Your task to perform on an android device: turn vacation reply on in the gmail app Image 0: 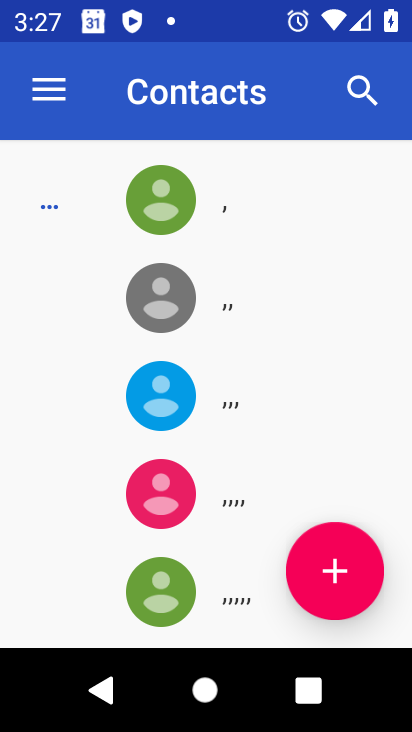
Step 0: press home button
Your task to perform on an android device: turn vacation reply on in the gmail app Image 1: 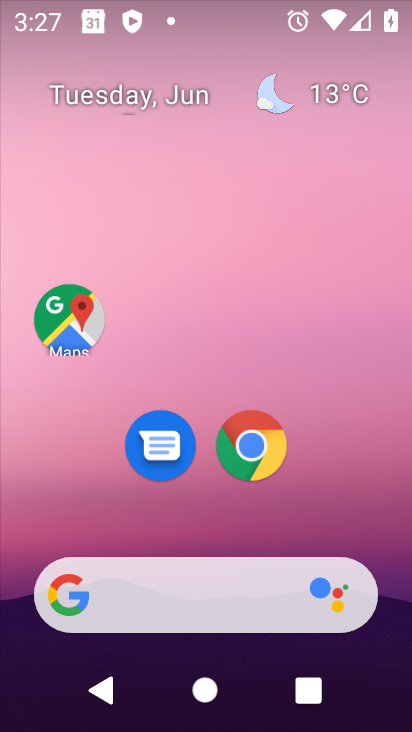
Step 1: drag from (406, 624) to (341, 138)
Your task to perform on an android device: turn vacation reply on in the gmail app Image 2: 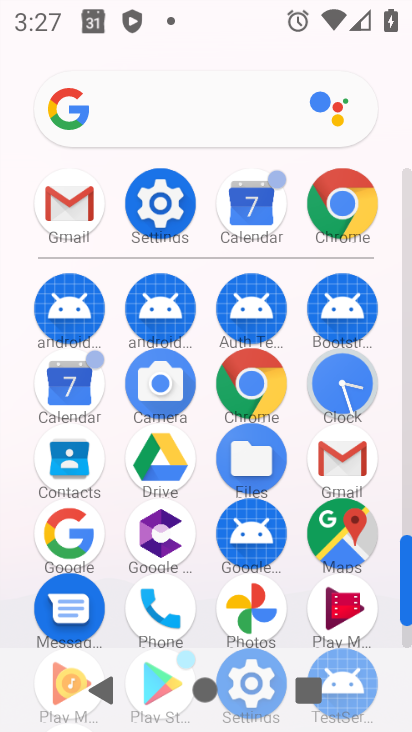
Step 2: click (403, 632)
Your task to perform on an android device: turn vacation reply on in the gmail app Image 3: 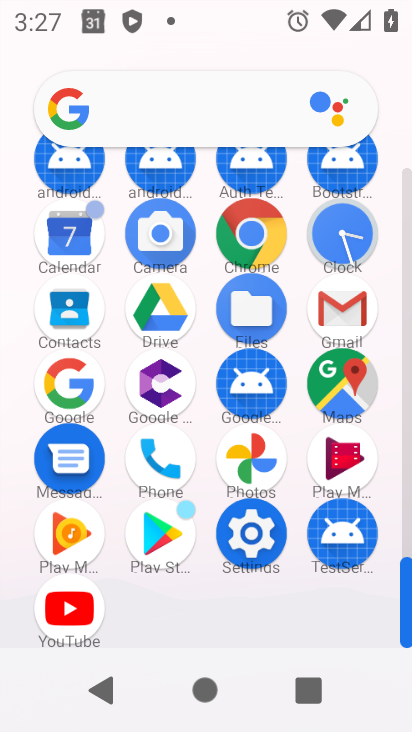
Step 3: click (338, 308)
Your task to perform on an android device: turn vacation reply on in the gmail app Image 4: 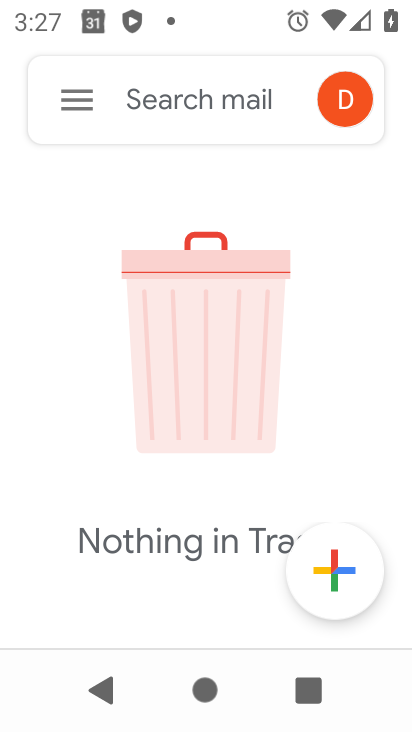
Step 4: click (76, 97)
Your task to perform on an android device: turn vacation reply on in the gmail app Image 5: 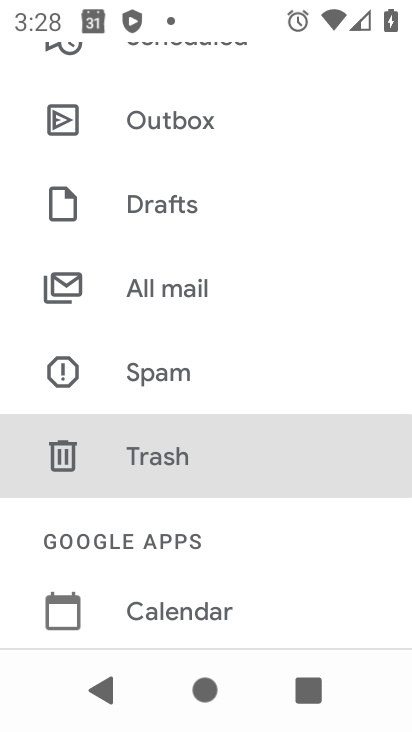
Step 5: drag from (303, 606) to (277, 62)
Your task to perform on an android device: turn vacation reply on in the gmail app Image 6: 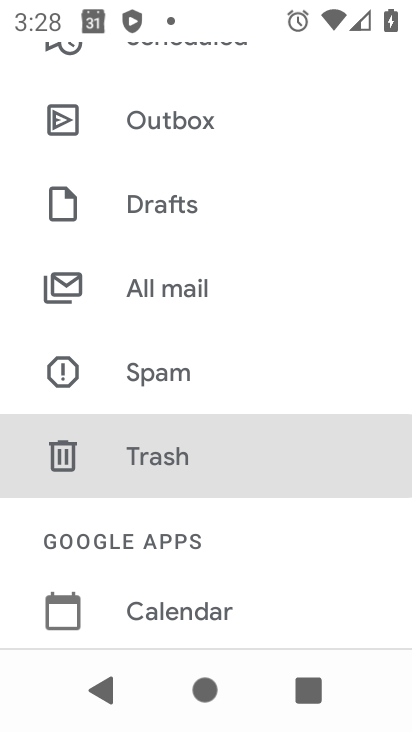
Step 6: drag from (273, 583) to (266, 59)
Your task to perform on an android device: turn vacation reply on in the gmail app Image 7: 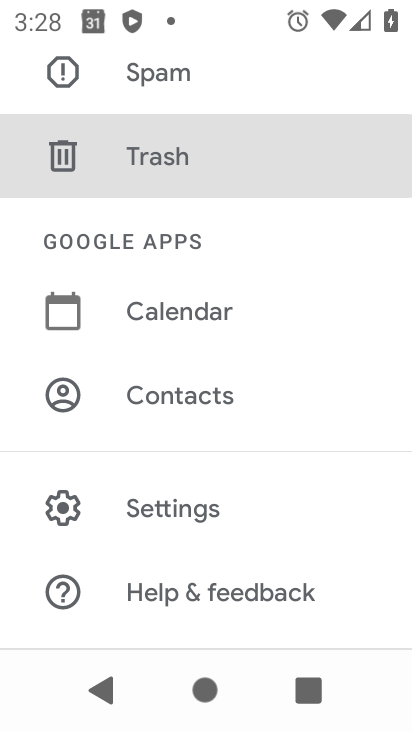
Step 7: click (176, 516)
Your task to perform on an android device: turn vacation reply on in the gmail app Image 8: 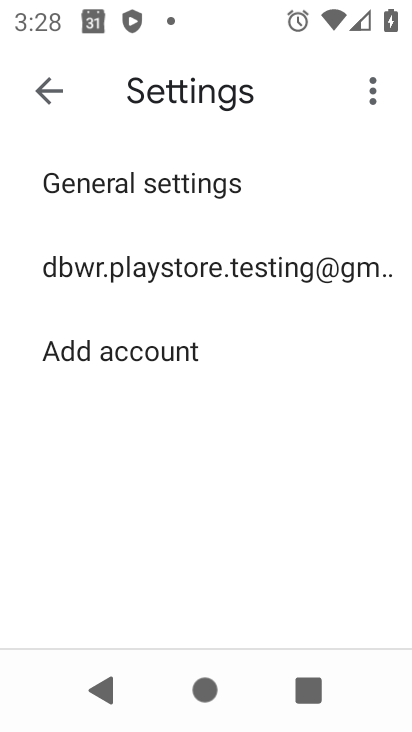
Step 8: click (183, 252)
Your task to perform on an android device: turn vacation reply on in the gmail app Image 9: 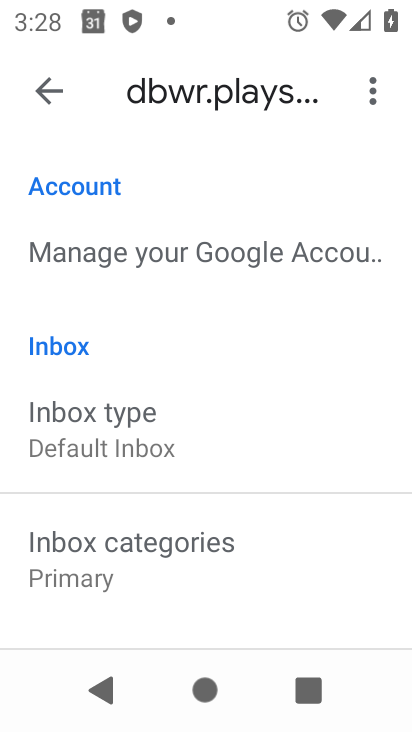
Step 9: drag from (268, 554) to (270, 155)
Your task to perform on an android device: turn vacation reply on in the gmail app Image 10: 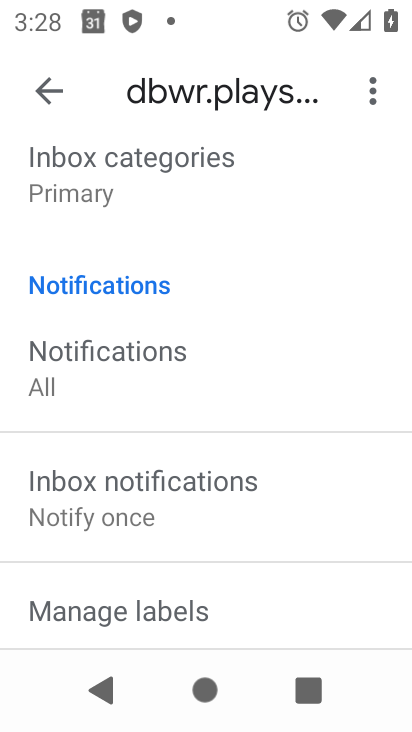
Step 10: drag from (286, 580) to (263, 215)
Your task to perform on an android device: turn vacation reply on in the gmail app Image 11: 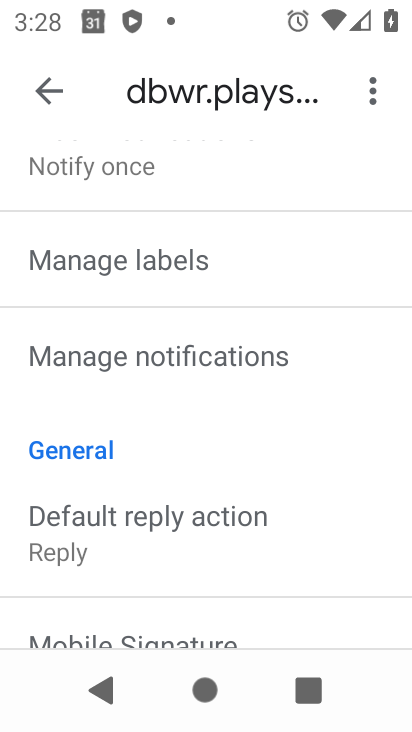
Step 11: drag from (299, 619) to (278, 115)
Your task to perform on an android device: turn vacation reply on in the gmail app Image 12: 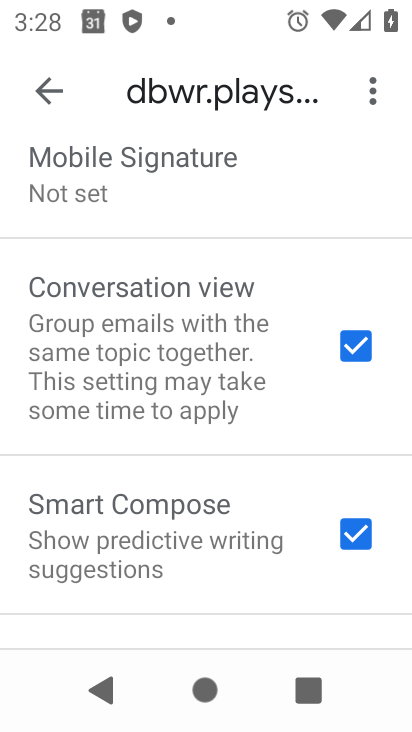
Step 12: drag from (297, 596) to (278, 210)
Your task to perform on an android device: turn vacation reply on in the gmail app Image 13: 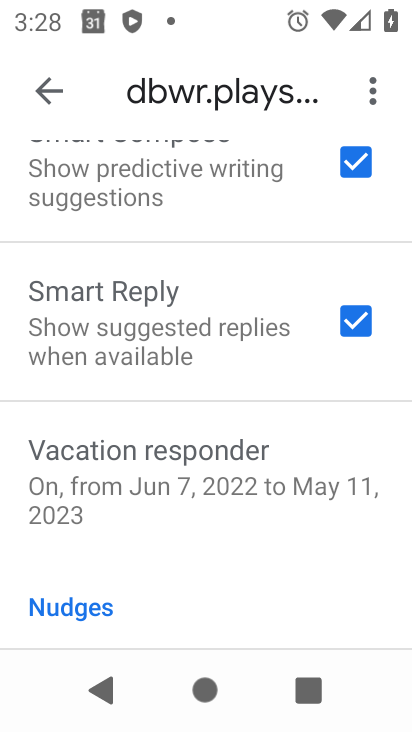
Step 13: click (154, 472)
Your task to perform on an android device: turn vacation reply on in the gmail app Image 14: 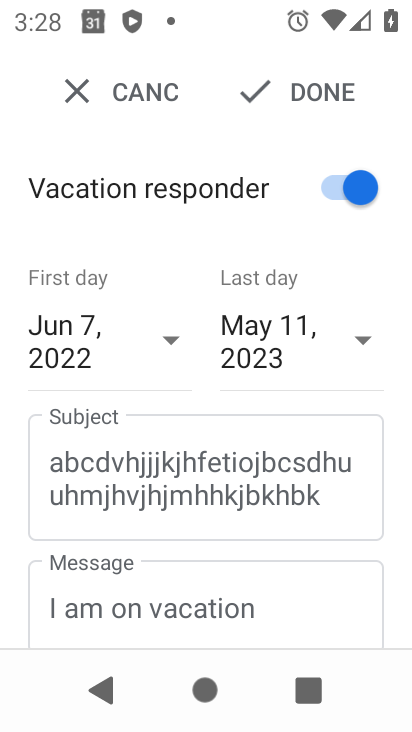
Step 14: task complete